Your task to perform on an android device: Open Google Chrome and open the bookmarks view Image 0: 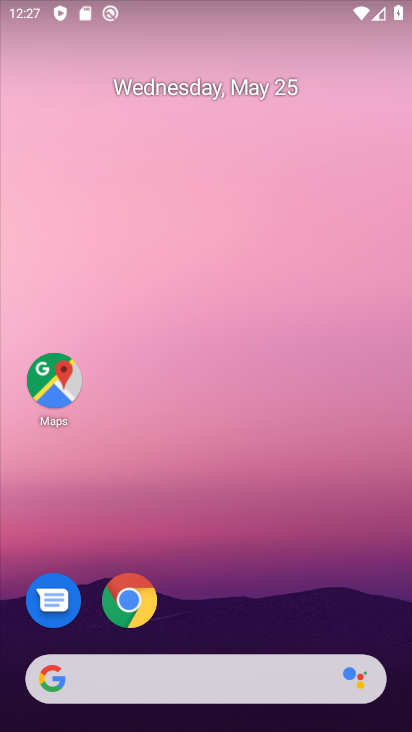
Step 0: drag from (254, 606) to (239, 147)
Your task to perform on an android device: Open Google Chrome and open the bookmarks view Image 1: 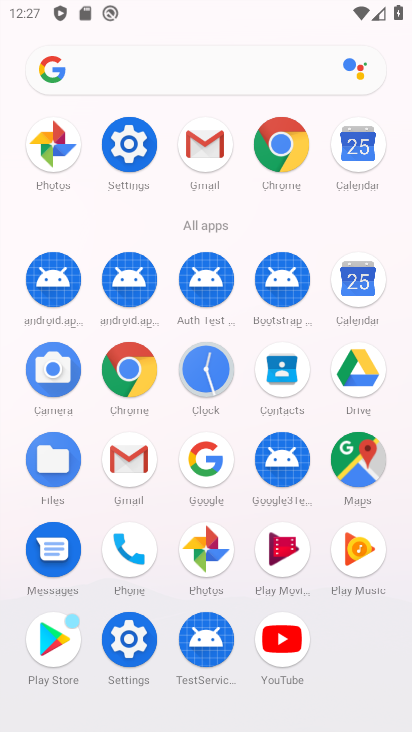
Step 1: click (294, 155)
Your task to perform on an android device: Open Google Chrome and open the bookmarks view Image 2: 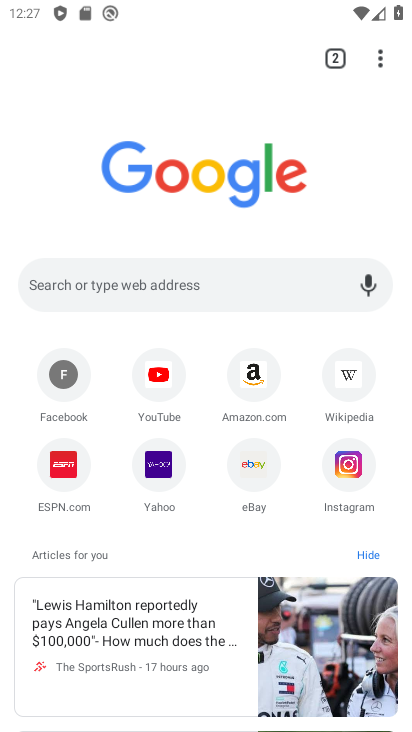
Step 2: click (381, 70)
Your task to perform on an android device: Open Google Chrome and open the bookmarks view Image 3: 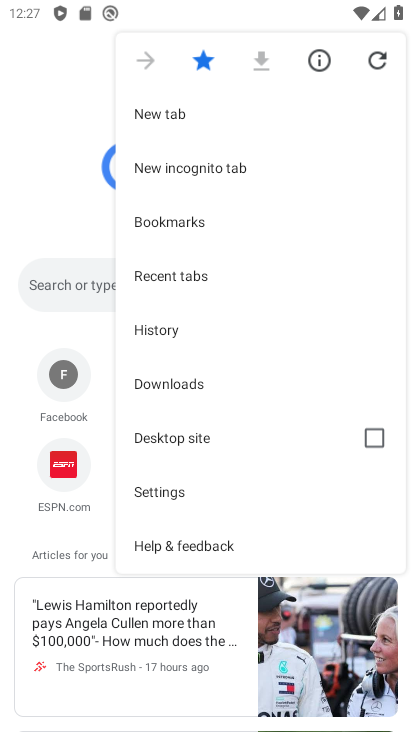
Step 3: click (329, 219)
Your task to perform on an android device: Open Google Chrome and open the bookmarks view Image 4: 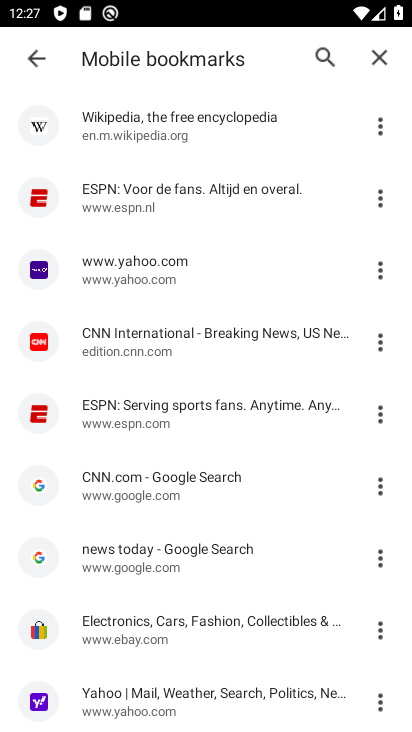
Step 4: task complete